Your task to perform on an android device: see sites visited before in the chrome app Image 0: 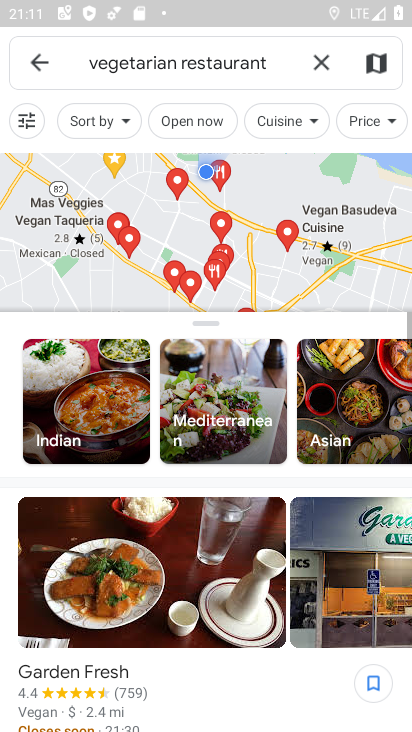
Step 0: press back button
Your task to perform on an android device: see sites visited before in the chrome app Image 1: 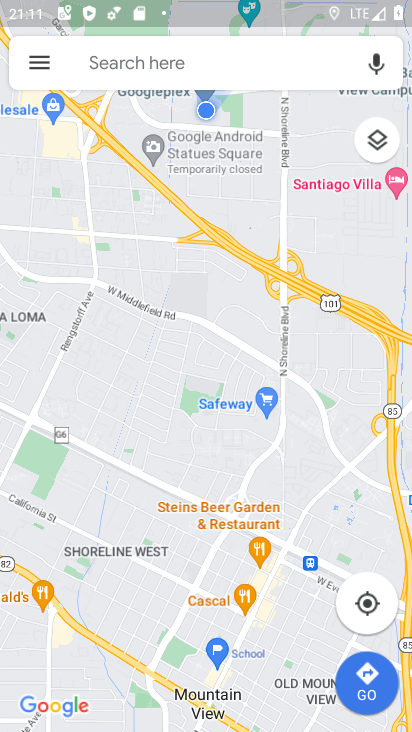
Step 1: press home button
Your task to perform on an android device: see sites visited before in the chrome app Image 2: 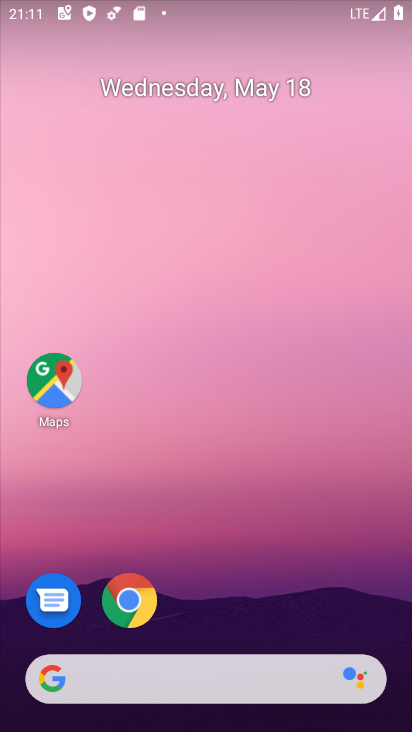
Step 2: click (120, 595)
Your task to perform on an android device: see sites visited before in the chrome app Image 3: 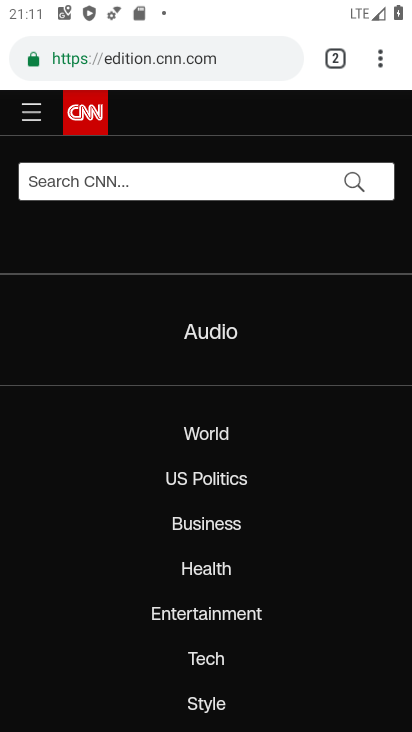
Step 3: task complete